Your task to perform on an android device: open app "Airtel Thanks" Image 0: 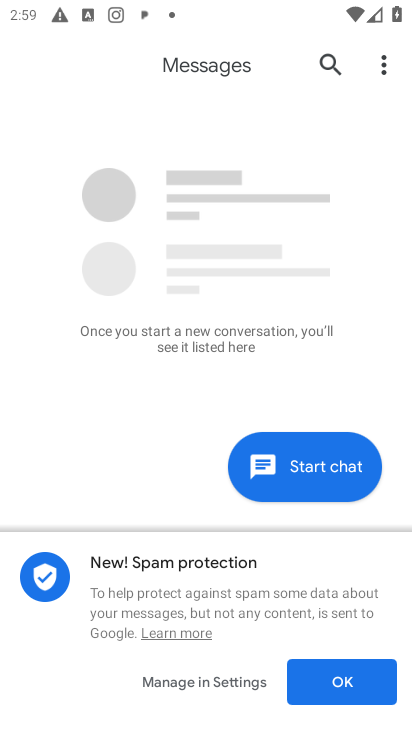
Step 0: press home button
Your task to perform on an android device: open app "Airtel Thanks" Image 1: 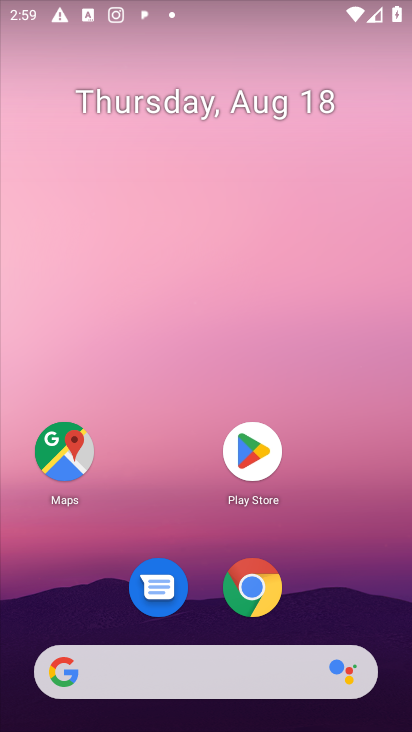
Step 1: click (251, 454)
Your task to perform on an android device: open app "Airtel Thanks" Image 2: 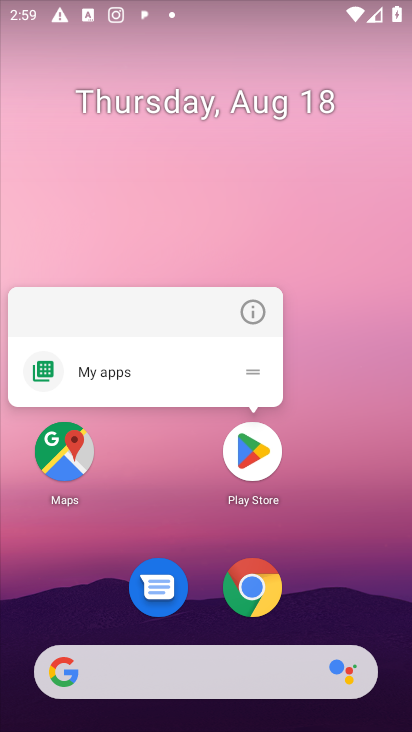
Step 2: click (250, 454)
Your task to perform on an android device: open app "Airtel Thanks" Image 3: 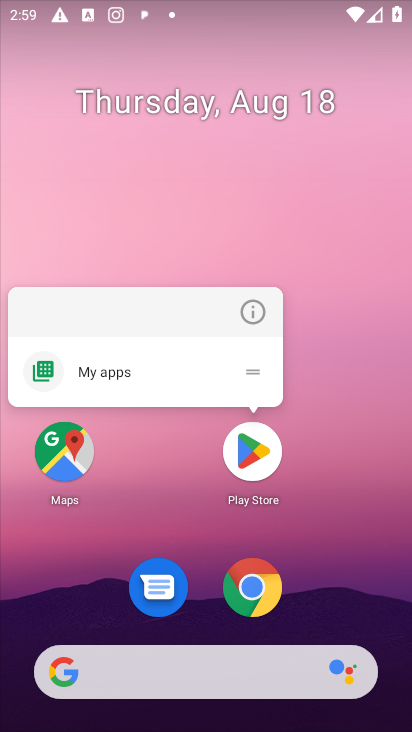
Step 3: click (250, 455)
Your task to perform on an android device: open app "Airtel Thanks" Image 4: 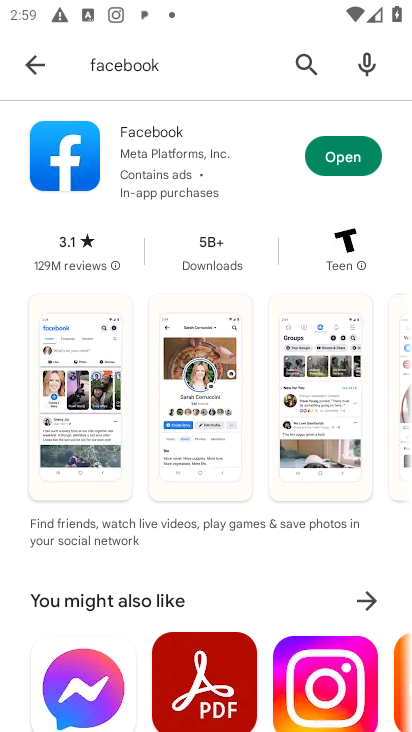
Step 4: click (301, 54)
Your task to perform on an android device: open app "Airtel Thanks" Image 5: 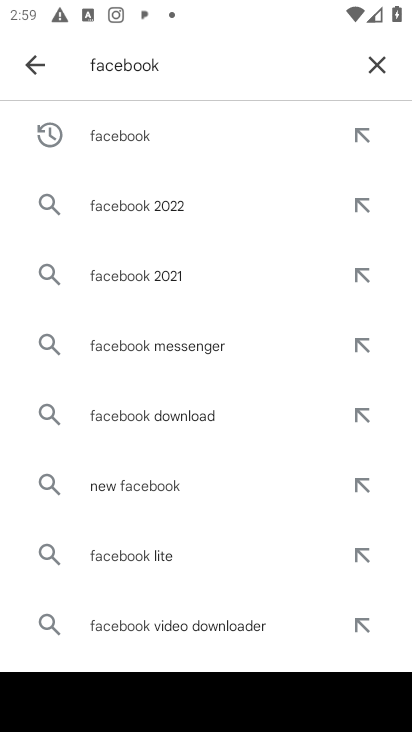
Step 5: click (377, 67)
Your task to perform on an android device: open app "Airtel Thanks" Image 6: 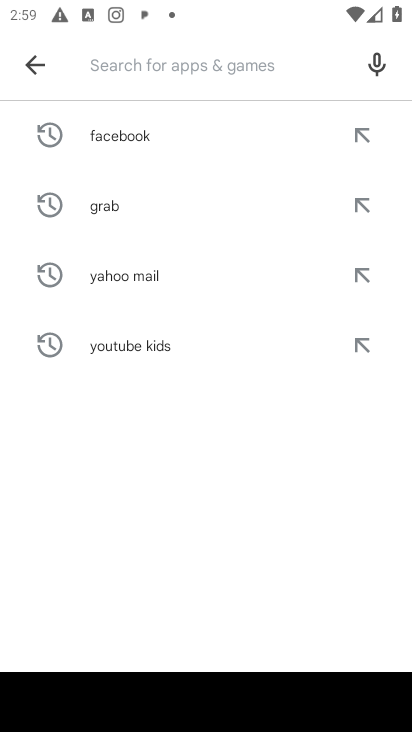
Step 6: type "Airtel Thanks"
Your task to perform on an android device: open app "Airtel Thanks" Image 7: 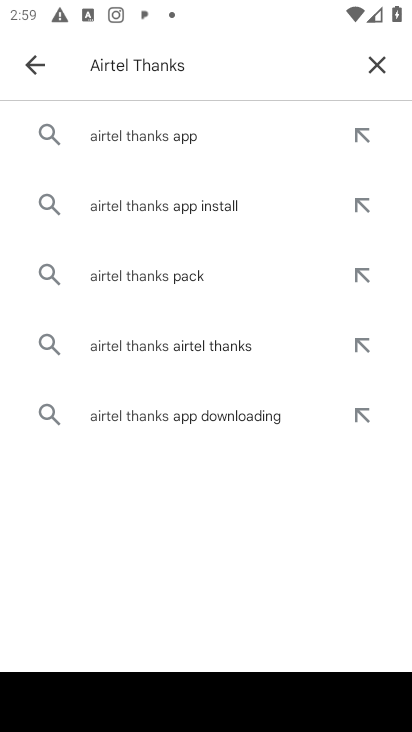
Step 7: click (148, 140)
Your task to perform on an android device: open app "Airtel Thanks" Image 8: 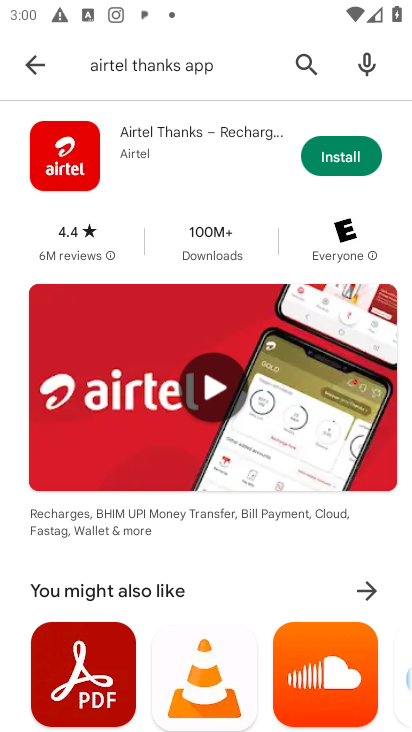
Step 8: task complete